Your task to perform on an android device: delete browsing data in the chrome app Image 0: 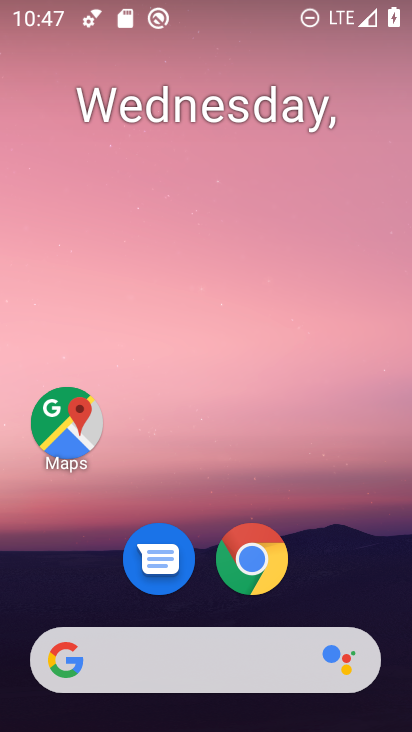
Step 0: drag from (368, 595) to (344, 290)
Your task to perform on an android device: delete browsing data in the chrome app Image 1: 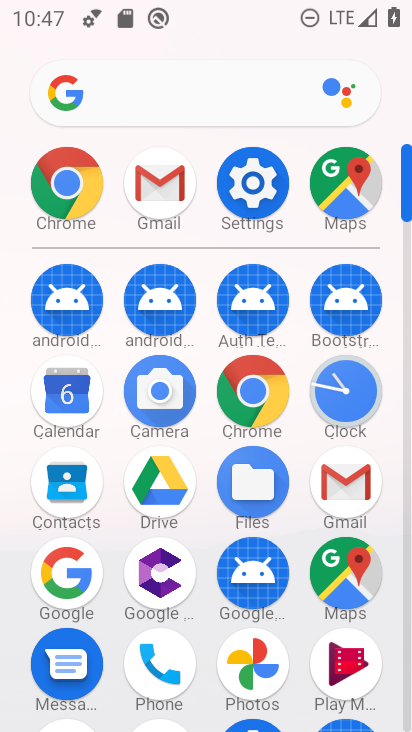
Step 1: click (264, 392)
Your task to perform on an android device: delete browsing data in the chrome app Image 2: 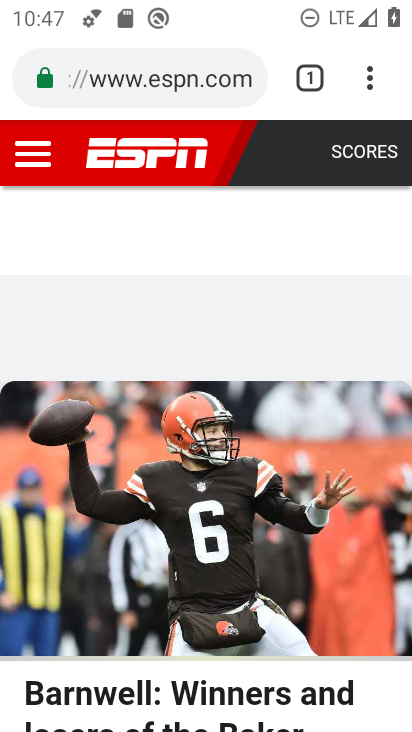
Step 2: click (370, 88)
Your task to perform on an android device: delete browsing data in the chrome app Image 3: 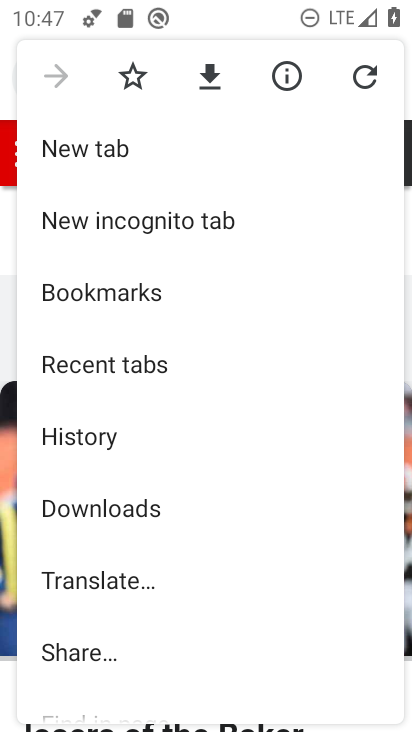
Step 3: drag from (324, 408) to (319, 331)
Your task to perform on an android device: delete browsing data in the chrome app Image 4: 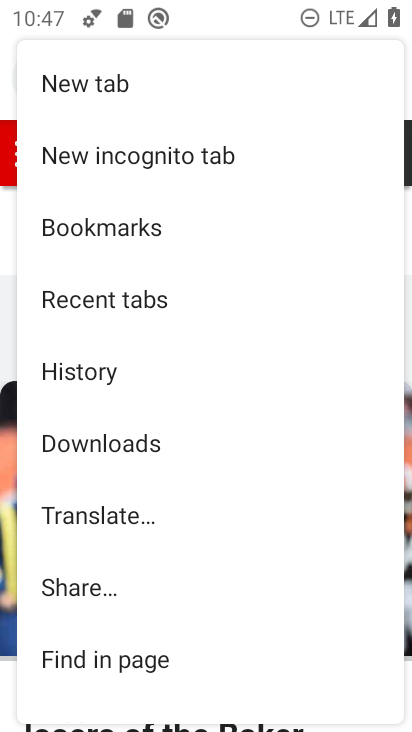
Step 4: drag from (312, 418) to (318, 285)
Your task to perform on an android device: delete browsing data in the chrome app Image 5: 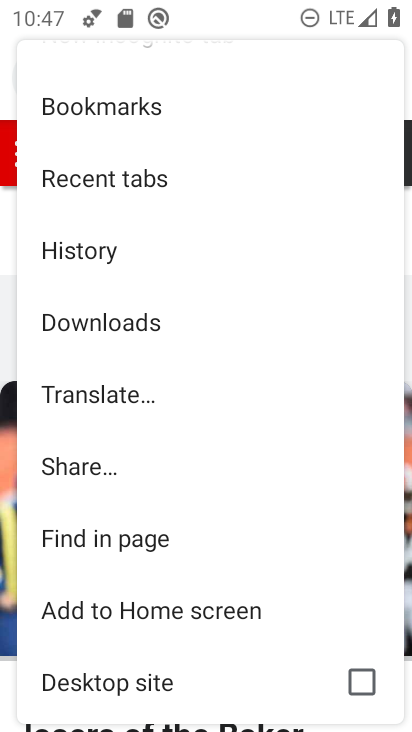
Step 5: drag from (292, 473) to (292, 340)
Your task to perform on an android device: delete browsing data in the chrome app Image 6: 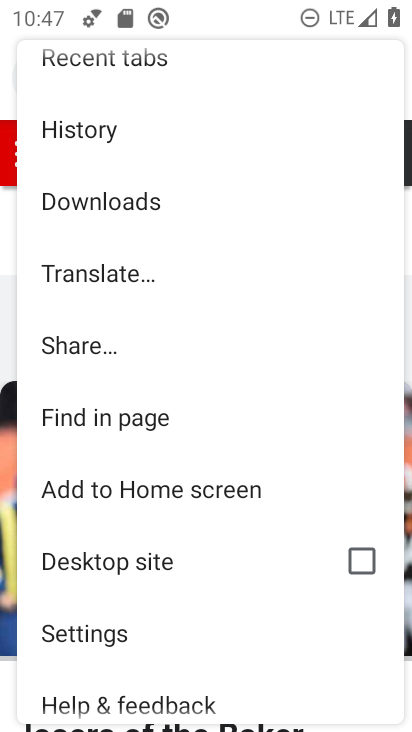
Step 6: drag from (299, 404) to (285, 272)
Your task to perform on an android device: delete browsing data in the chrome app Image 7: 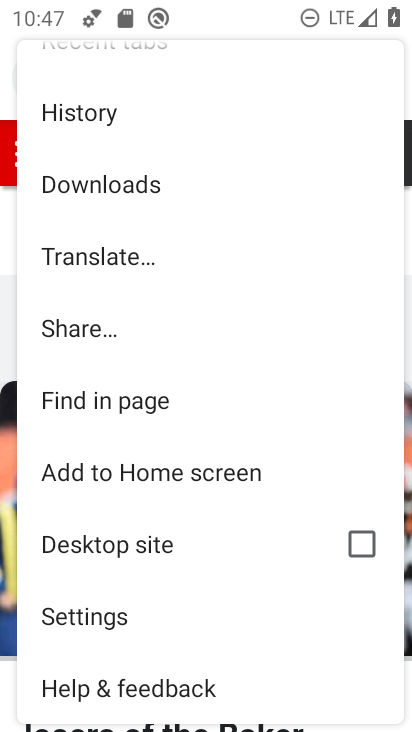
Step 7: click (232, 618)
Your task to perform on an android device: delete browsing data in the chrome app Image 8: 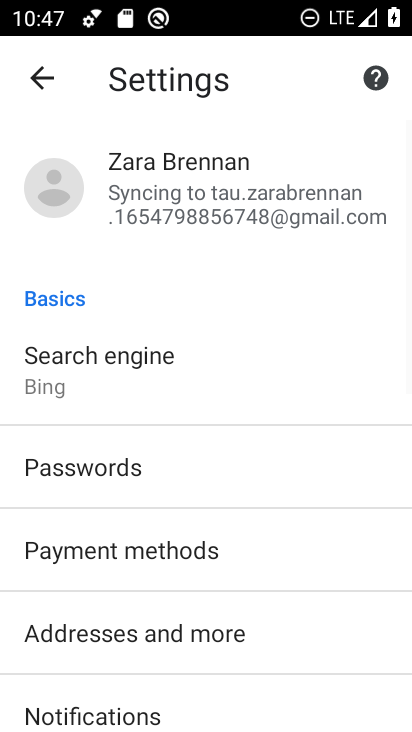
Step 8: drag from (319, 541) to (324, 433)
Your task to perform on an android device: delete browsing data in the chrome app Image 9: 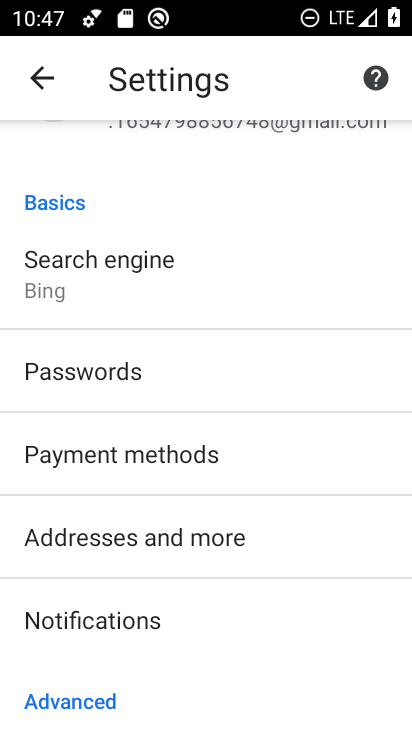
Step 9: drag from (331, 574) to (330, 450)
Your task to perform on an android device: delete browsing data in the chrome app Image 10: 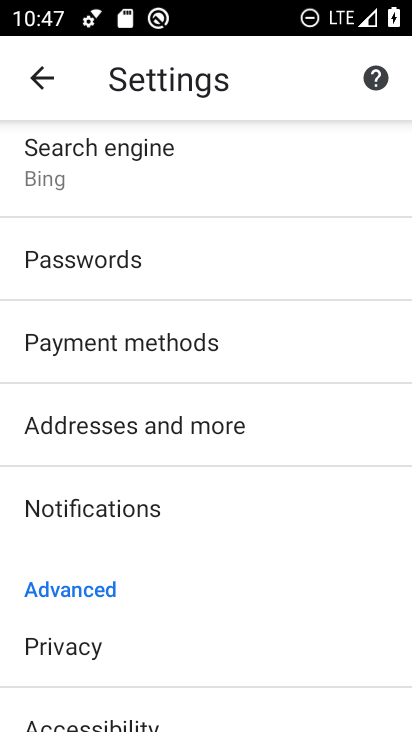
Step 10: drag from (342, 551) to (324, 383)
Your task to perform on an android device: delete browsing data in the chrome app Image 11: 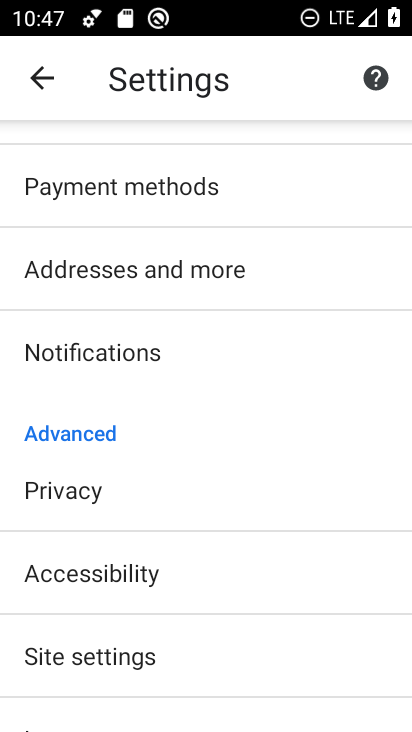
Step 11: drag from (323, 520) to (312, 350)
Your task to perform on an android device: delete browsing data in the chrome app Image 12: 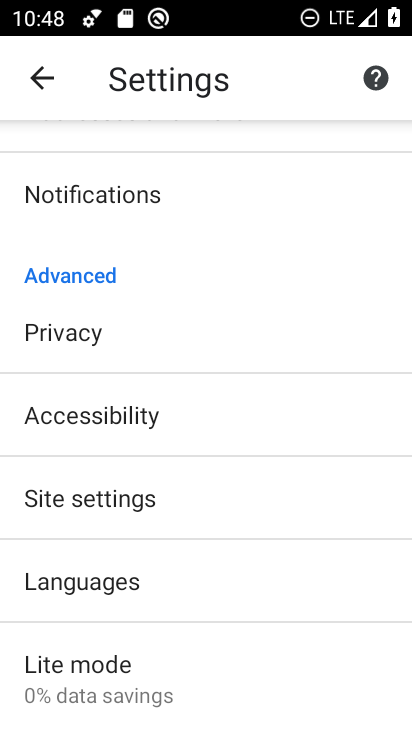
Step 12: click (159, 339)
Your task to perform on an android device: delete browsing data in the chrome app Image 13: 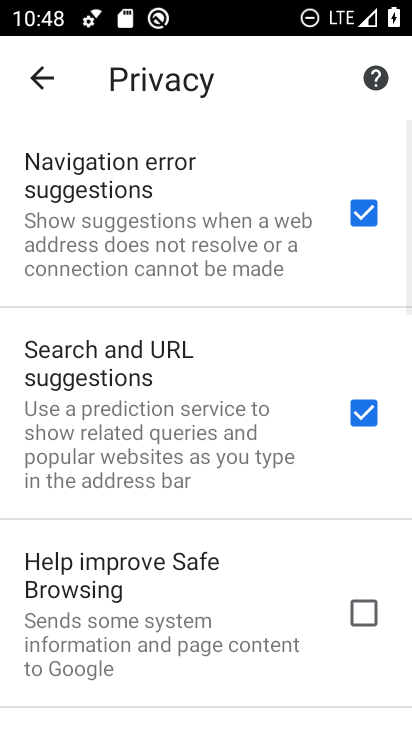
Step 13: drag from (299, 527) to (303, 418)
Your task to perform on an android device: delete browsing data in the chrome app Image 14: 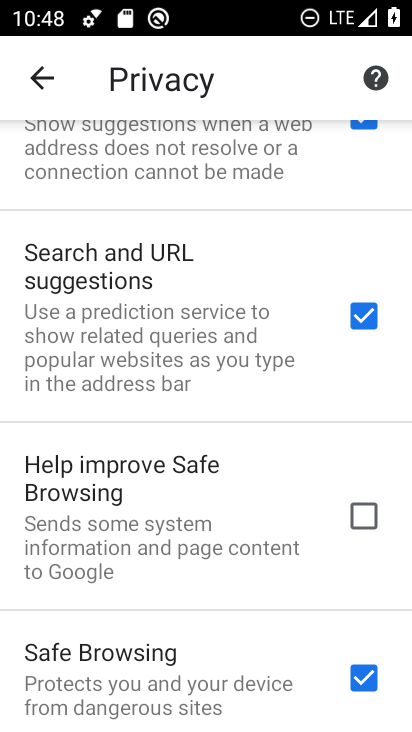
Step 14: drag from (311, 576) to (305, 471)
Your task to perform on an android device: delete browsing data in the chrome app Image 15: 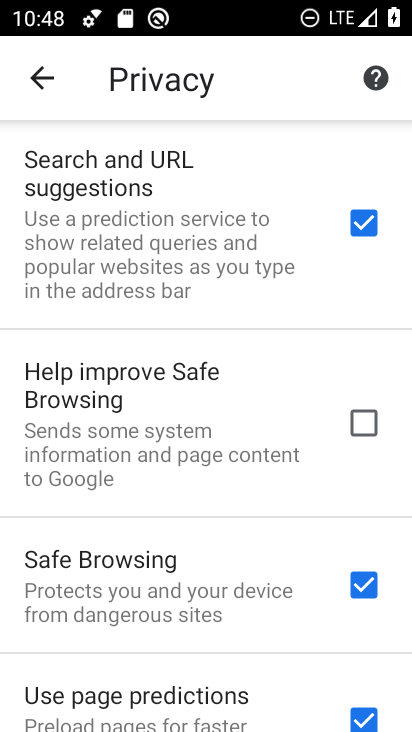
Step 15: drag from (302, 604) to (305, 437)
Your task to perform on an android device: delete browsing data in the chrome app Image 16: 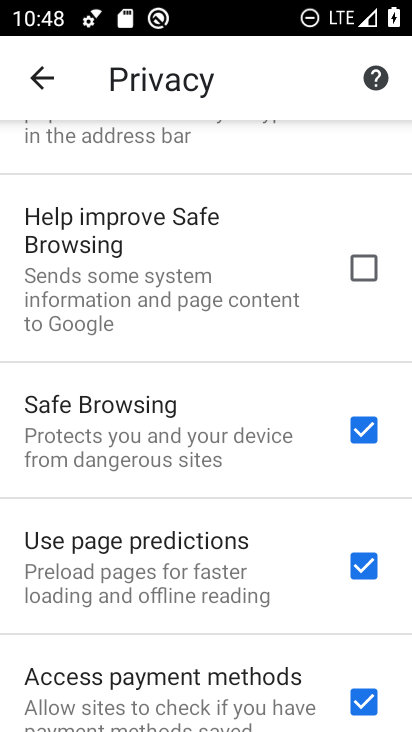
Step 16: drag from (290, 588) to (292, 466)
Your task to perform on an android device: delete browsing data in the chrome app Image 17: 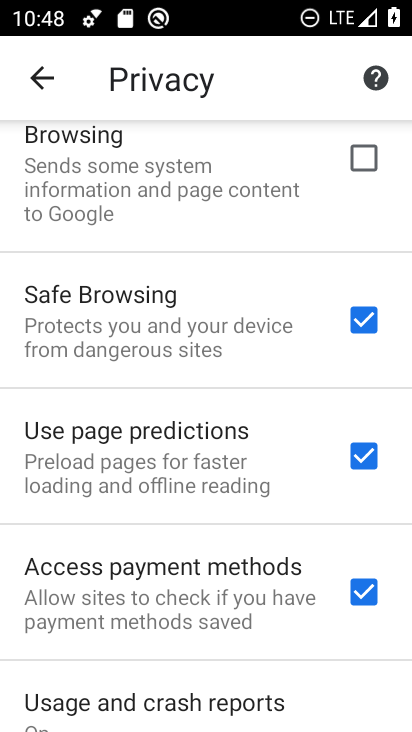
Step 17: drag from (313, 648) to (311, 513)
Your task to perform on an android device: delete browsing data in the chrome app Image 18: 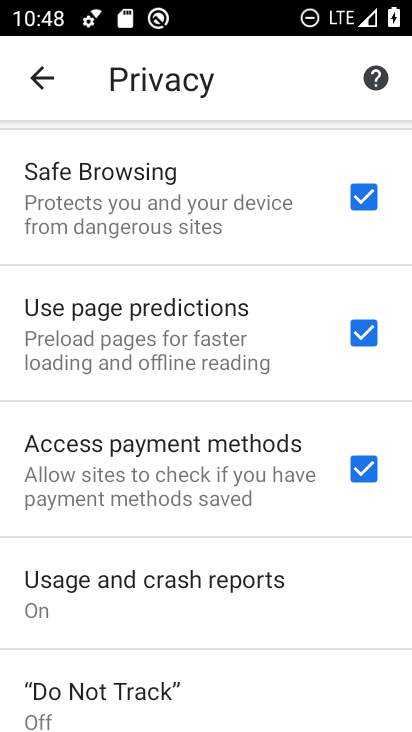
Step 18: drag from (317, 634) to (314, 476)
Your task to perform on an android device: delete browsing data in the chrome app Image 19: 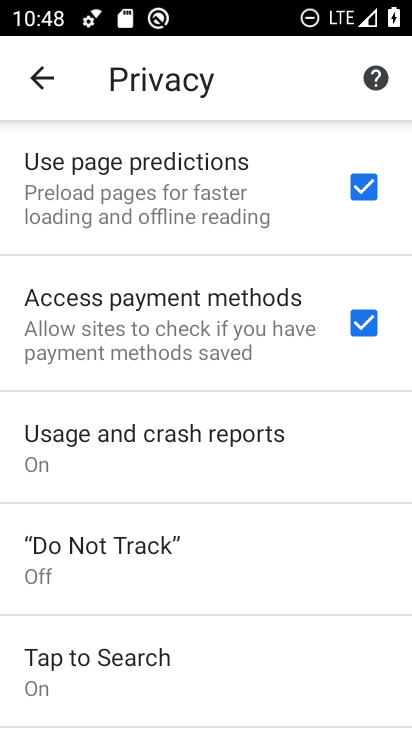
Step 19: drag from (294, 634) to (298, 450)
Your task to perform on an android device: delete browsing data in the chrome app Image 20: 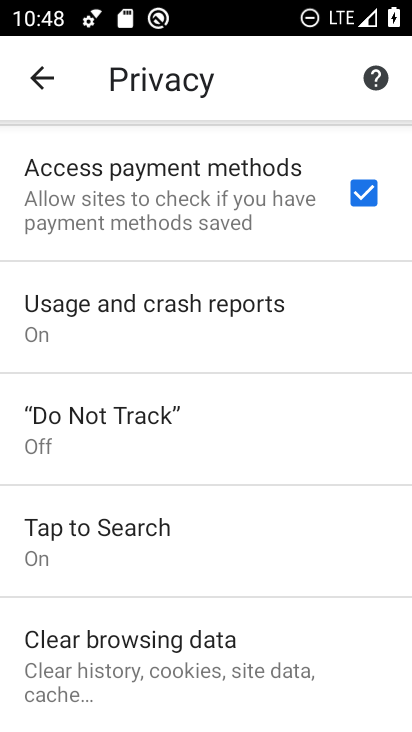
Step 20: drag from (318, 573) to (299, 390)
Your task to perform on an android device: delete browsing data in the chrome app Image 21: 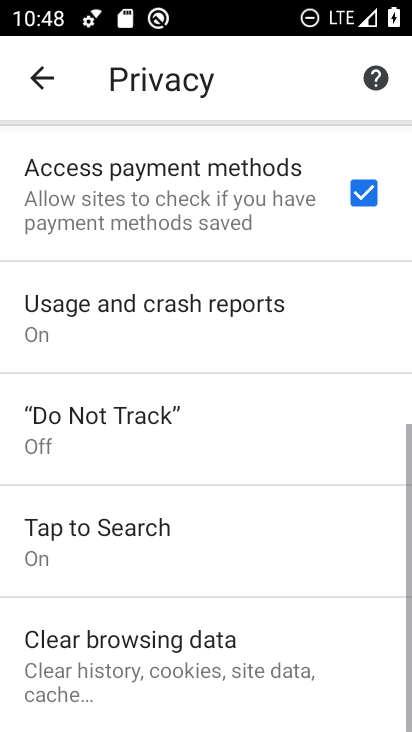
Step 21: click (274, 664)
Your task to perform on an android device: delete browsing data in the chrome app Image 22: 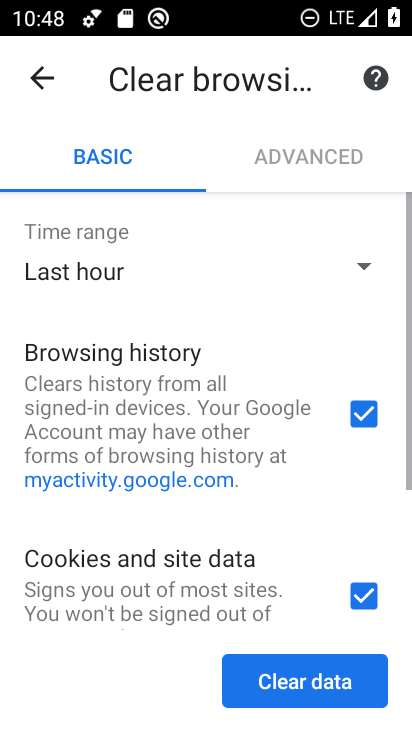
Step 22: click (276, 683)
Your task to perform on an android device: delete browsing data in the chrome app Image 23: 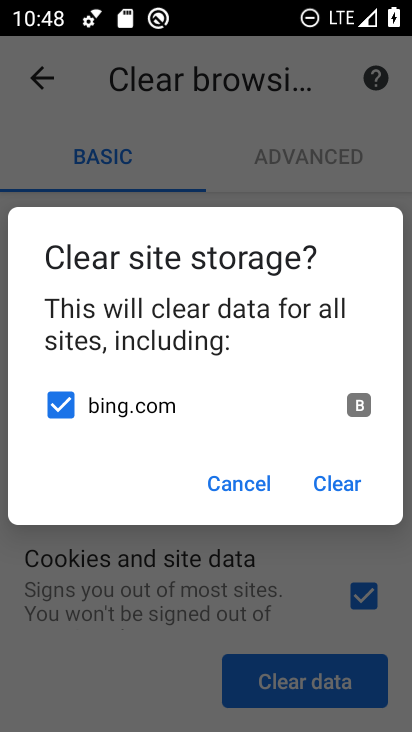
Step 23: click (354, 484)
Your task to perform on an android device: delete browsing data in the chrome app Image 24: 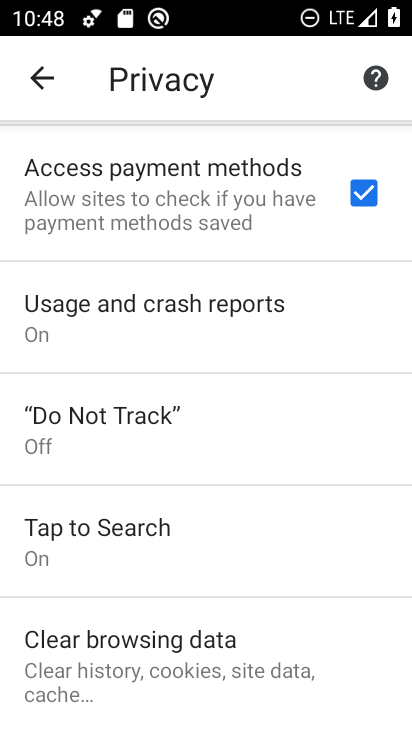
Step 24: task complete